Your task to perform on an android device: Open Maps and search for coffee Image 0: 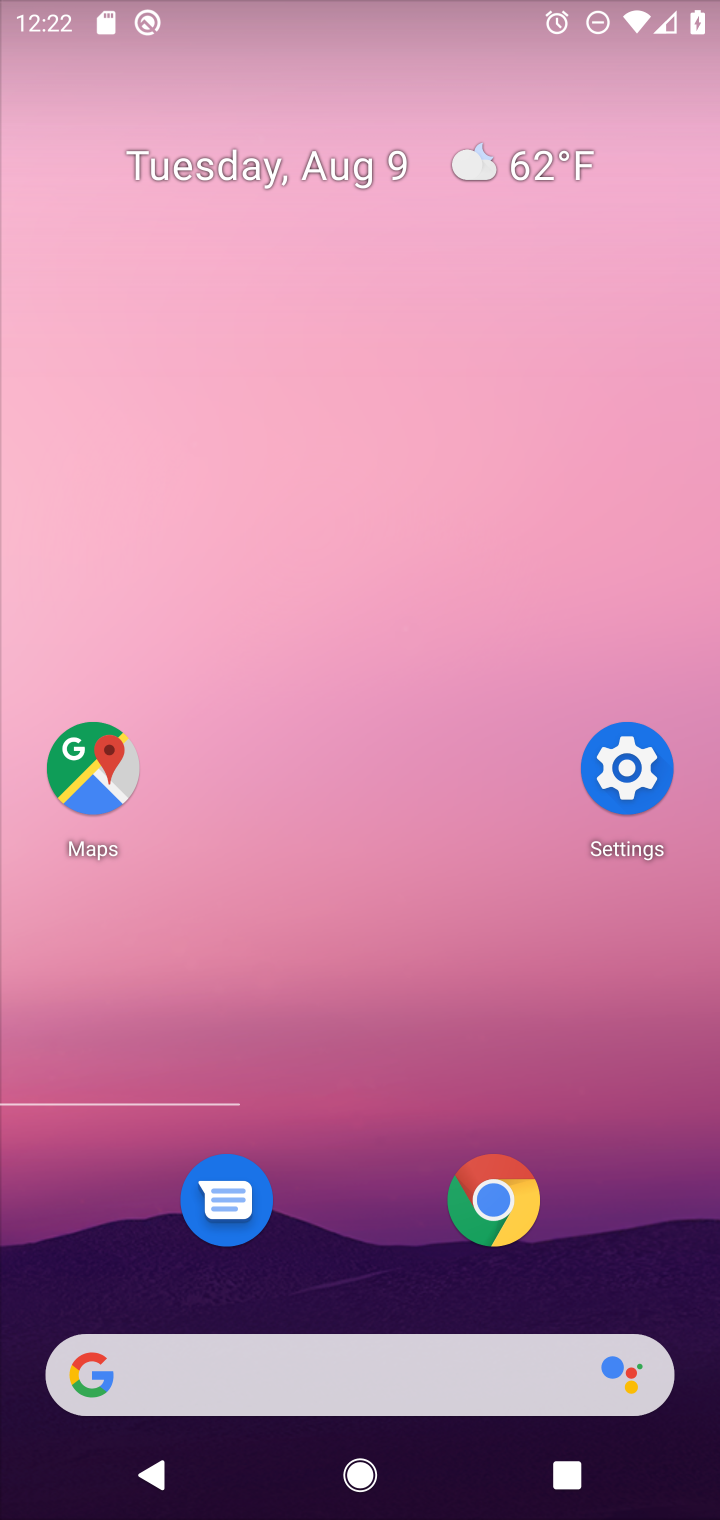
Step 0: press home button
Your task to perform on an android device: Open Maps and search for coffee Image 1: 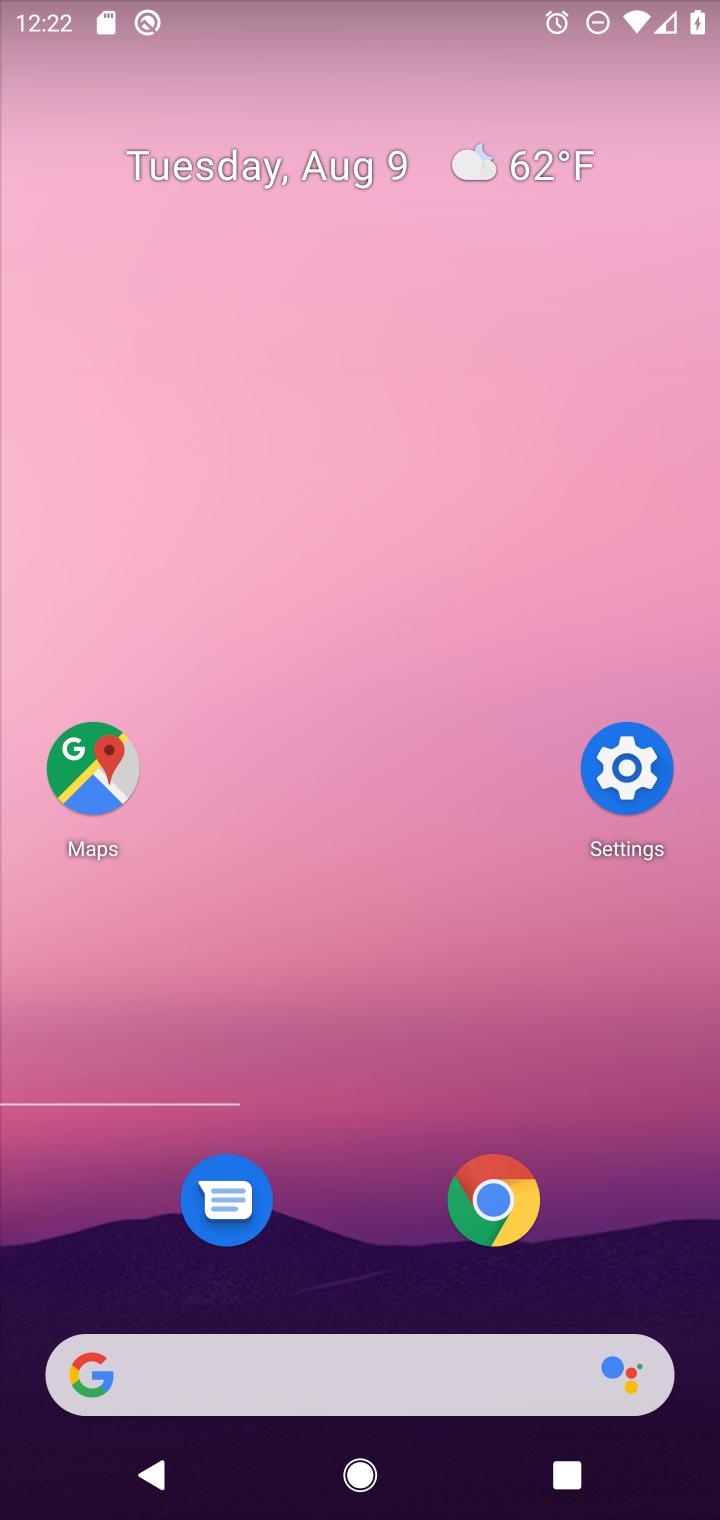
Step 1: click (90, 749)
Your task to perform on an android device: Open Maps and search for coffee Image 2: 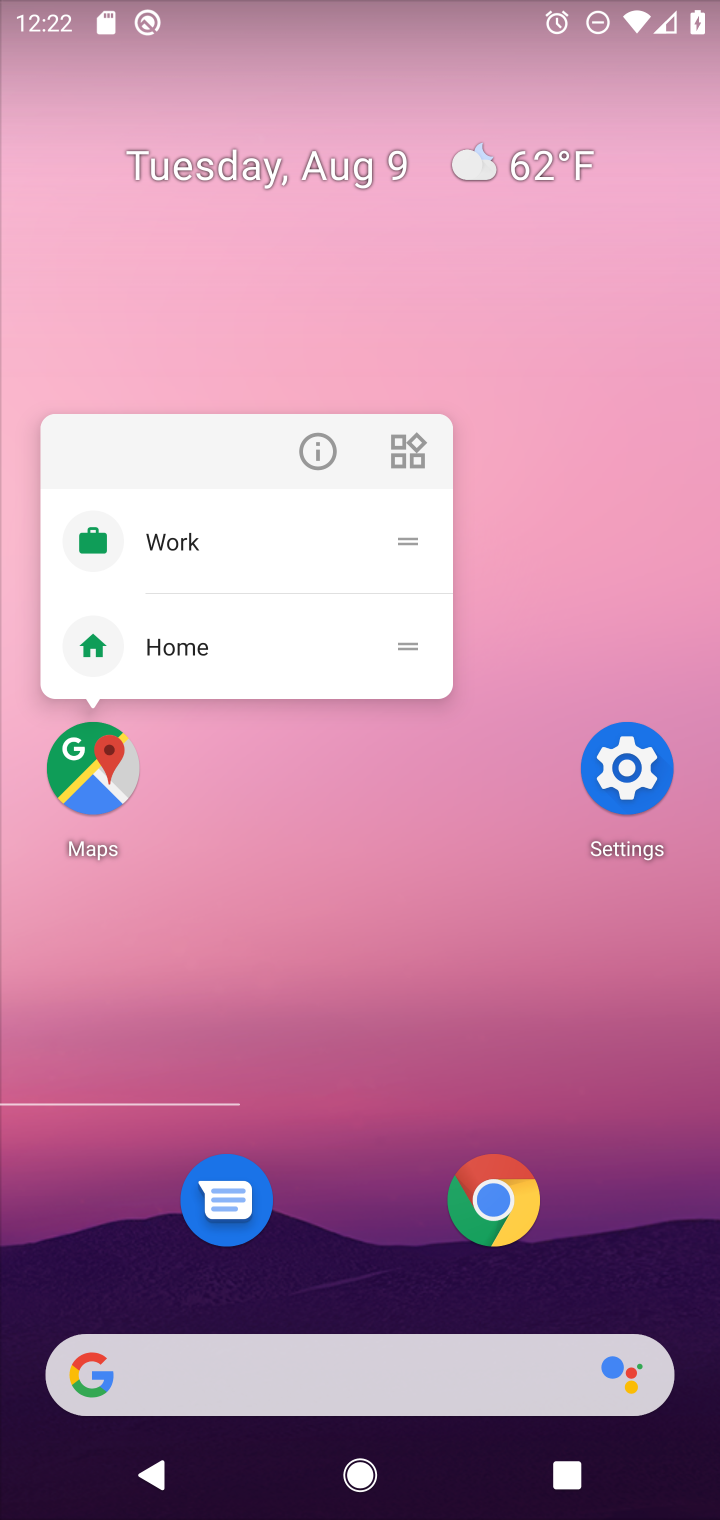
Step 2: click (90, 755)
Your task to perform on an android device: Open Maps and search for coffee Image 3: 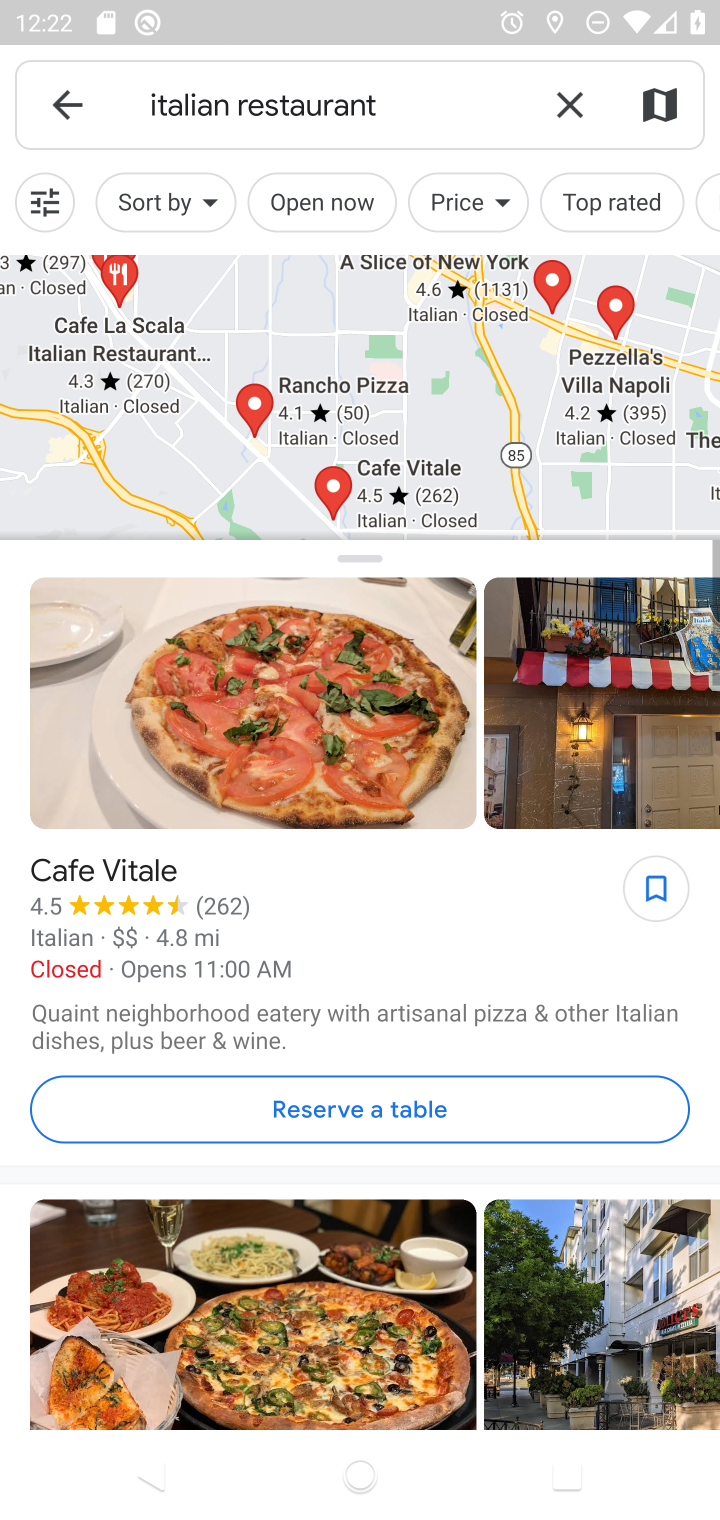
Step 3: click (570, 95)
Your task to perform on an android device: Open Maps and search for coffee Image 4: 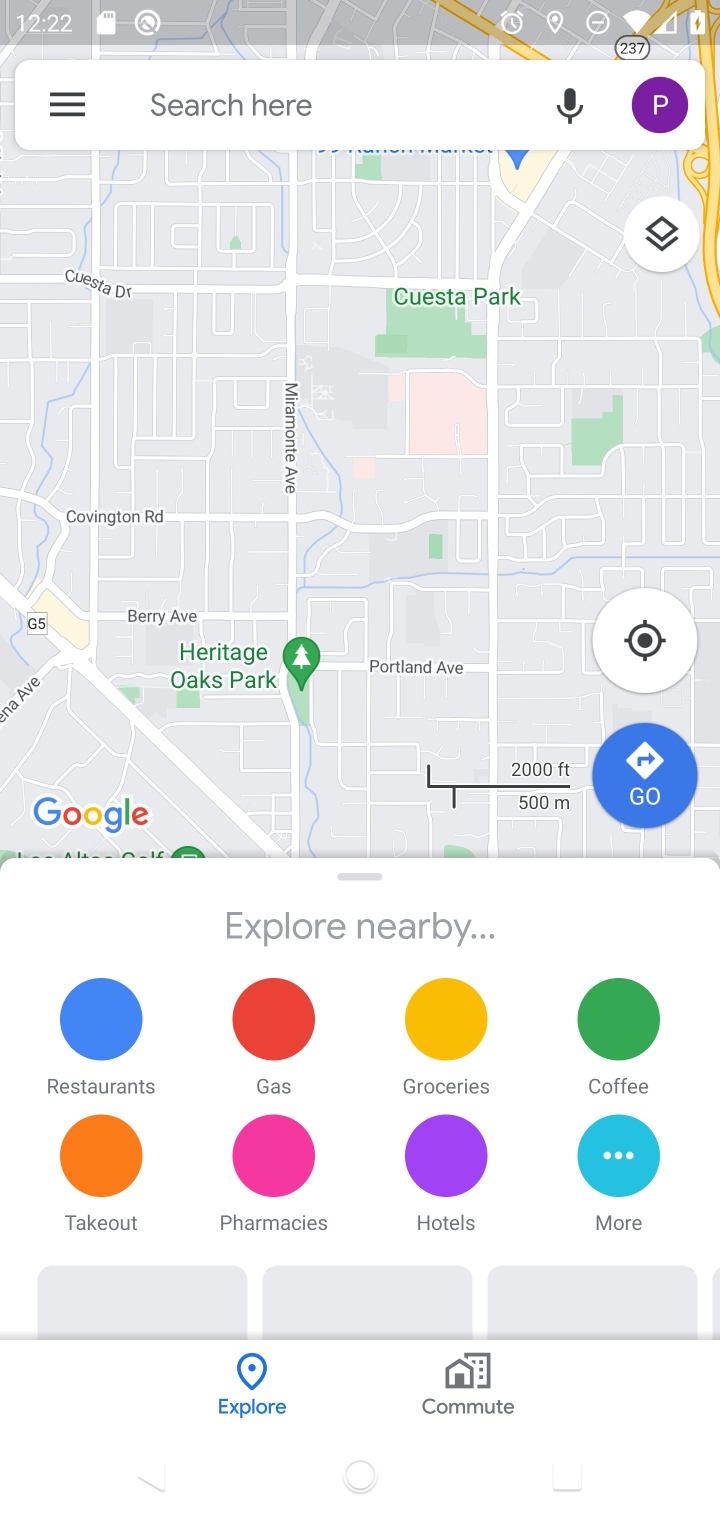
Step 4: click (227, 87)
Your task to perform on an android device: Open Maps and search for coffee Image 5: 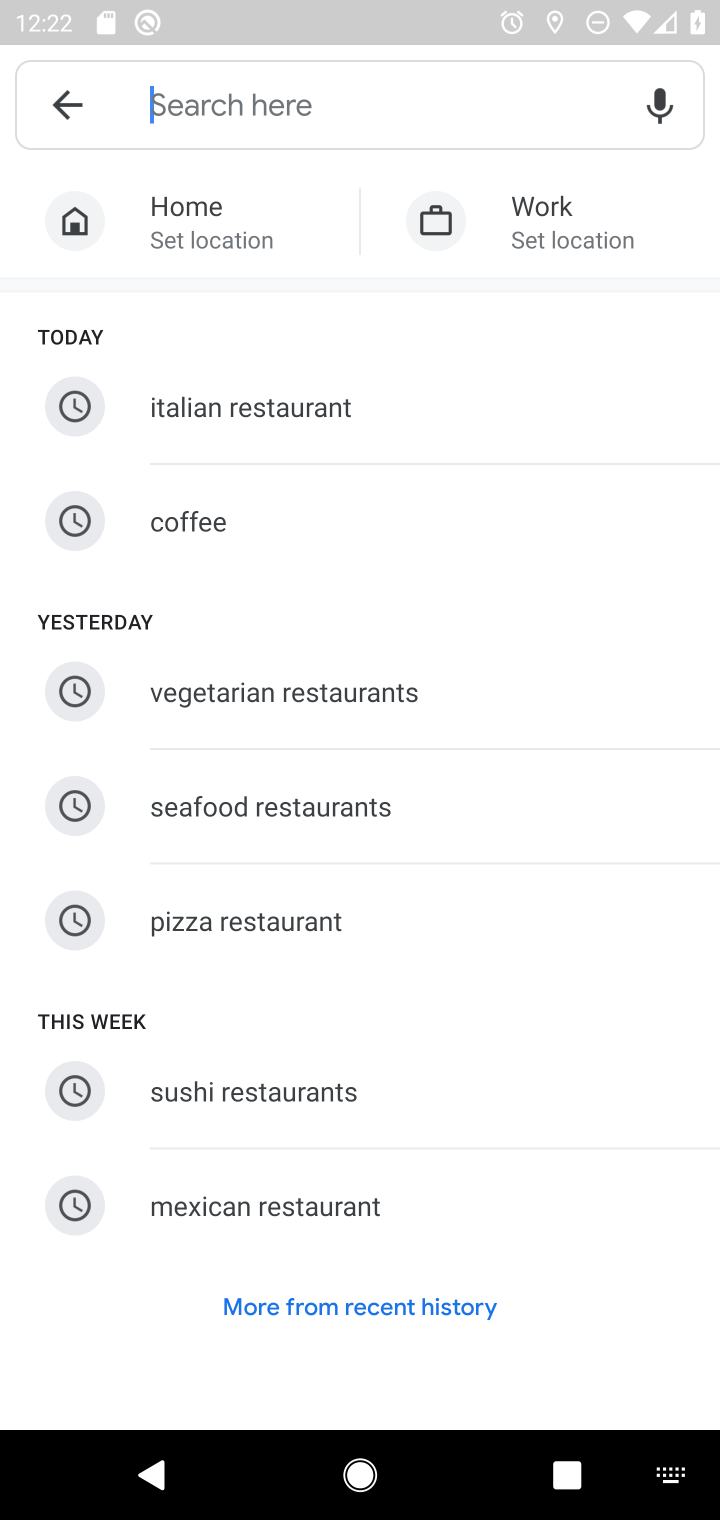
Step 5: click (186, 519)
Your task to perform on an android device: Open Maps and search for coffee Image 6: 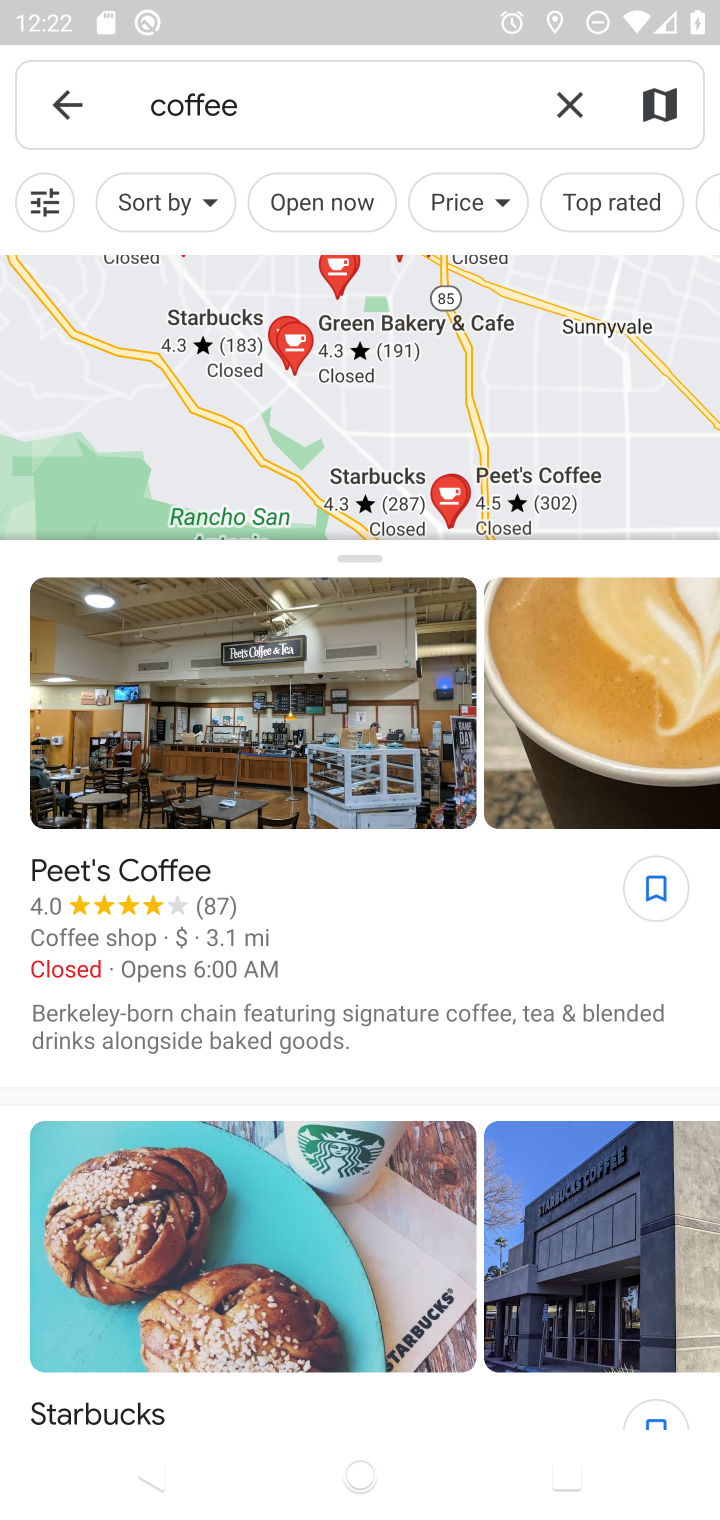
Step 6: task complete